Your task to perform on an android device: allow notifications from all sites in the chrome app Image 0: 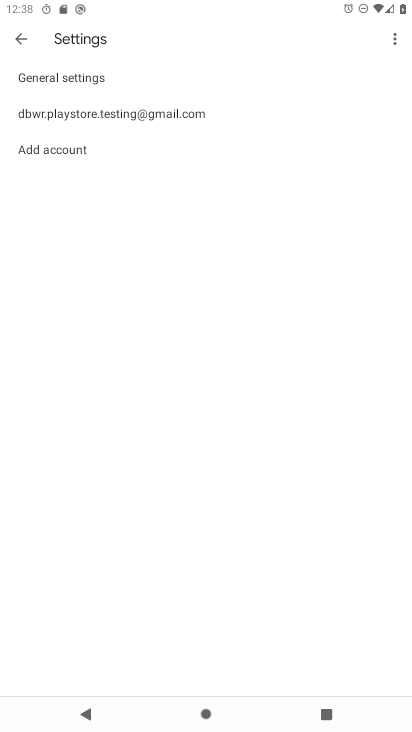
Step 0: press home button
Your task to perform on an android device: allow notifications from all sites in the chrome app Image 1: 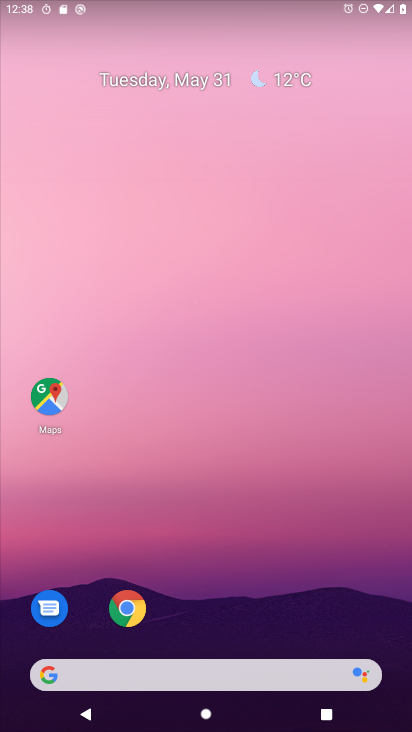
Step 1: click (127, 606)
Your task to perform on an android device: allow notifications from all sites in the chrome app Image 2: 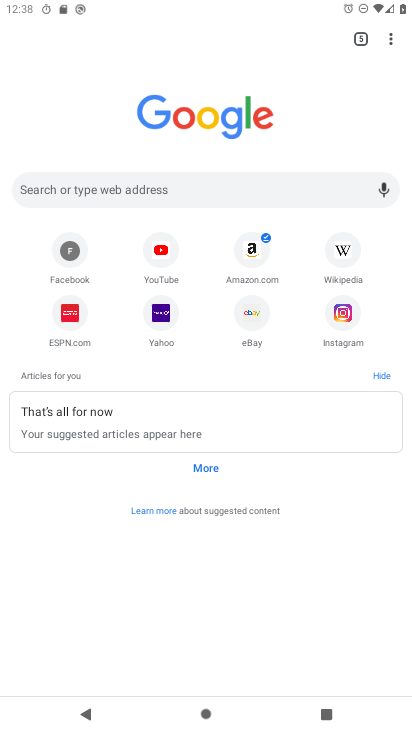
Step 2: click (393, 41)
Your task to perform on an android device: allow notifications from all sites in the chrome app Image 3: 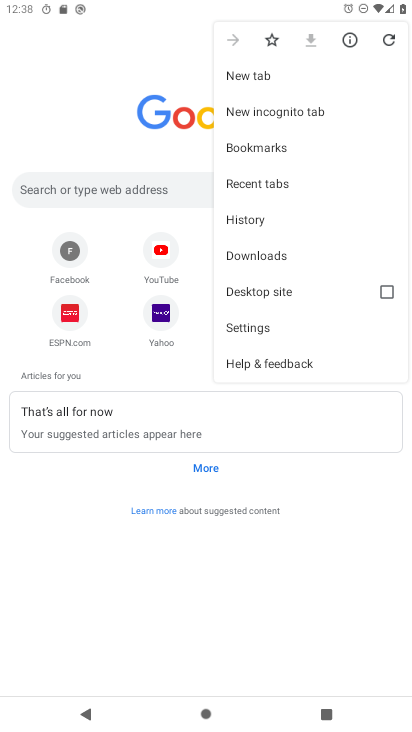
Step 3: click (245, 329)
Your task to perform on an android device: allow notifications from all sites in the chrome app Image 4: 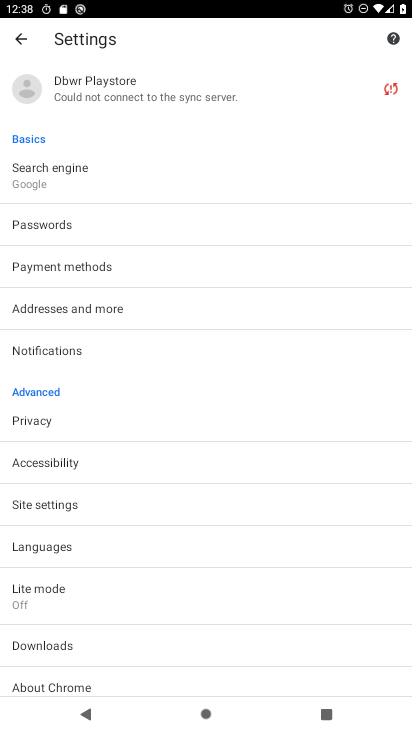
Step 4: click (31, 349)
Your task to perform on an android device: allow notifications from all sites in the chrome app Image 5: 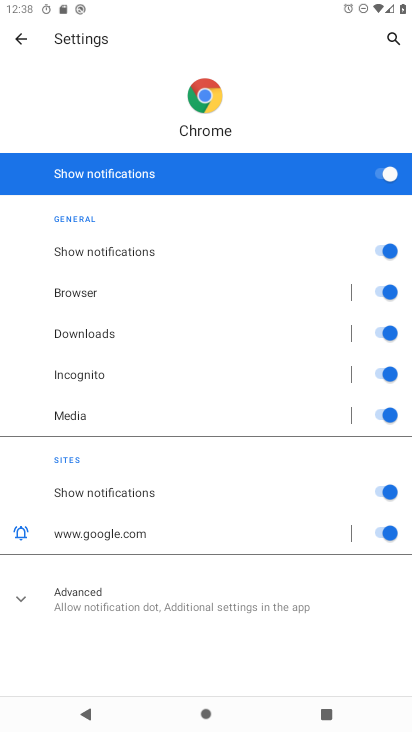
Step 5: task complete